Your task to perform on an android device: Open Youtube and go to the subscriptions tab Image 0: 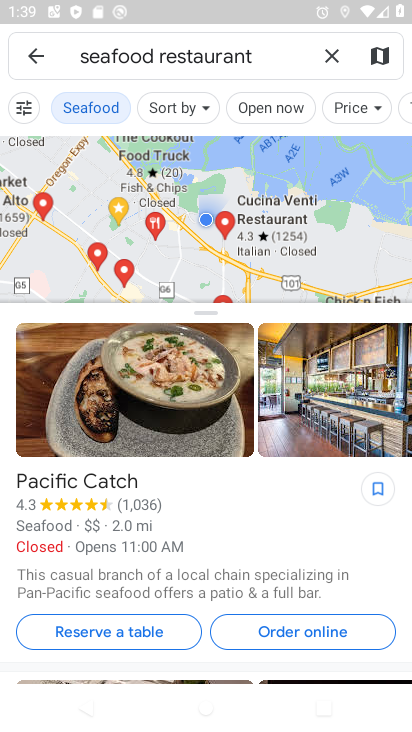
Step 0: press home button
Your task to perform on an android device: Open Youtube and go to the subscriptions tab Image 1: 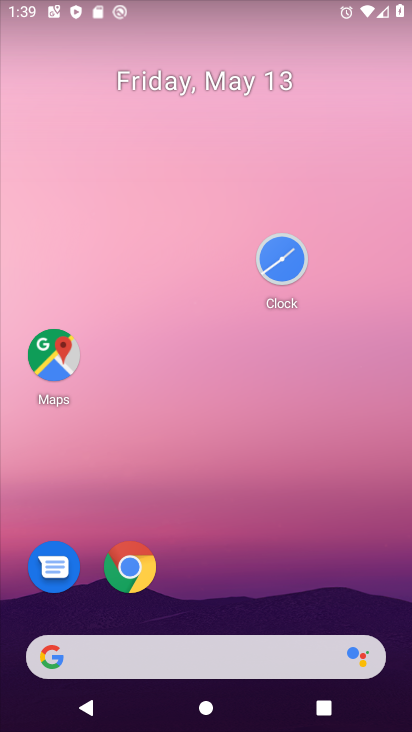
Step 1: drag from (278, 562) to (277, 289)
Your task to perform on an android device: Open Youtube and go to the subscriptions tab Image 2: 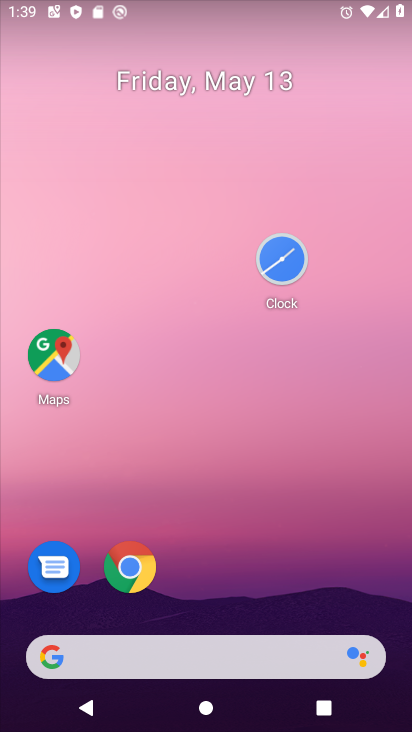
Step 2: drag from (255, 573) to (297, 192)
Your task to perform on an android device: Open Youtube and go to the subscriptions tab Image 3: 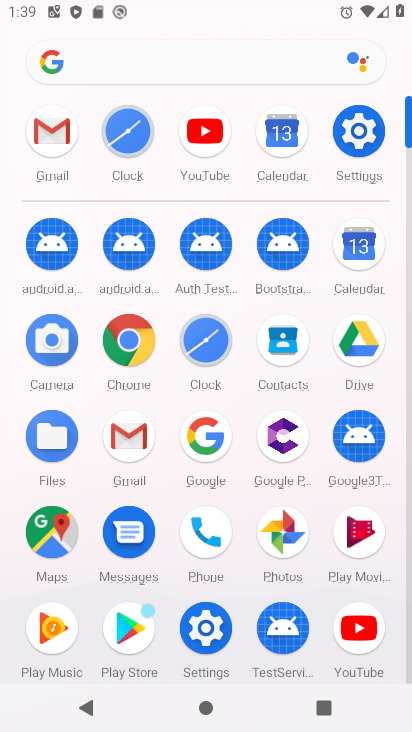
Step 3: click (210, 142)
Your task to perform on an android device: Open Youtube and go to the subscriptions tab Image 4: 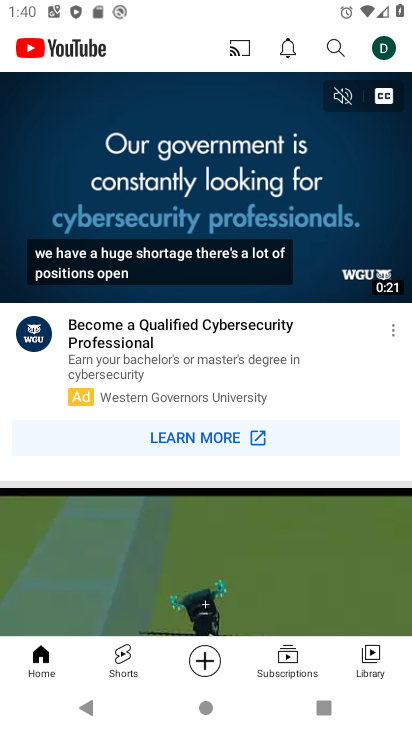
Step 4: click (288, 664)
Your task to perform on an android device: Open Youtube and go to the subscriptions tab Image 5: 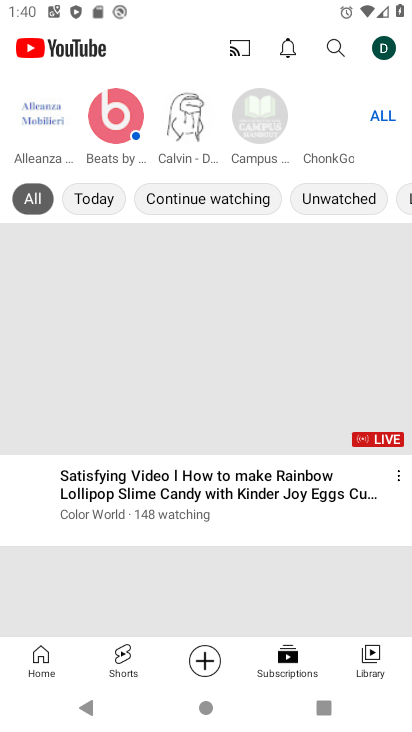
Step 5: task complete